Your task to perform on an android device: turn off location history Image 0: 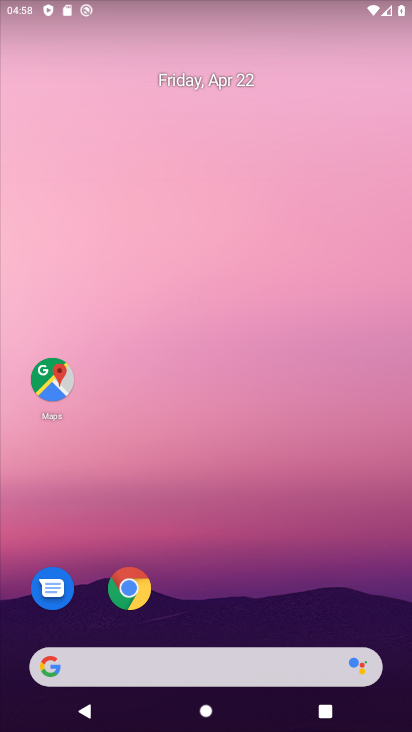
Step 0: click (135, 587)
Your task to perform on an android device: turn off location history Image 1: 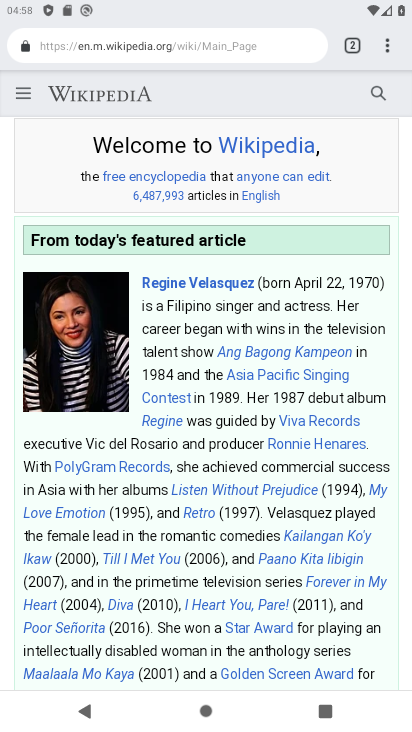
Step 1: click (357, 42)
Your task to perform on an android device: turn off location history Image 2: 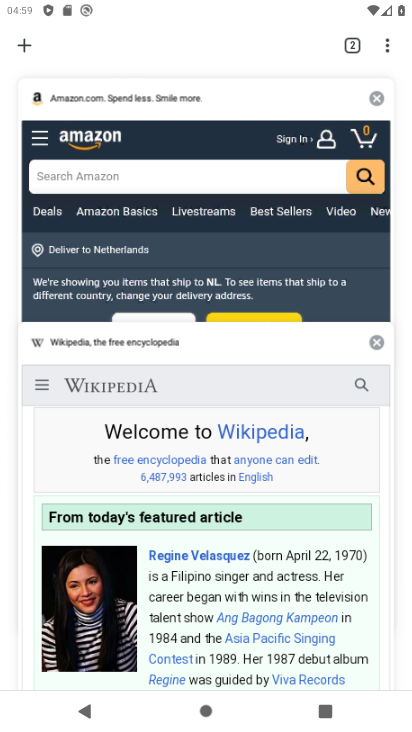
Step 2: click (384, 49)
Your task to perform on an android device: turn off location history Image 3: 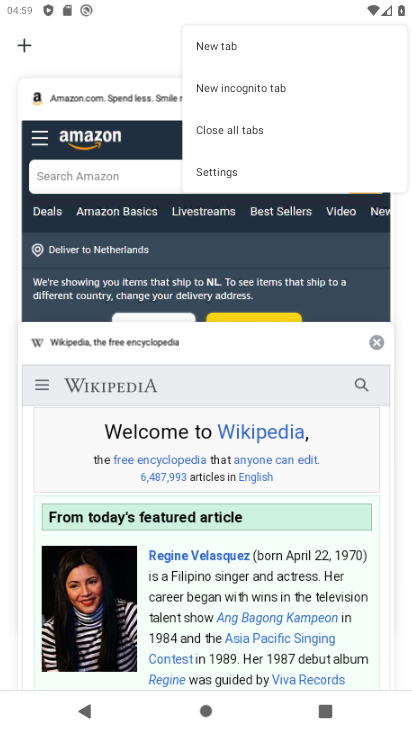
Step 3: press home button
Your task to perform on an android device: turn off location history Image 4: 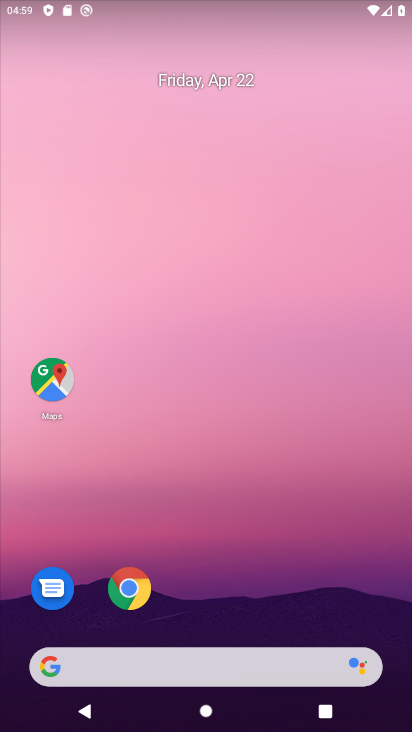
Step 4: drag from (273, 536) to (315, 59)
Your task to perform on an android device: turn off location history Image 5: 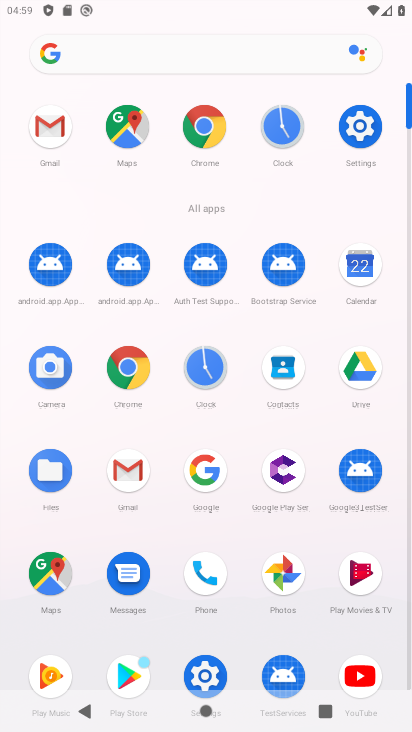
Step 5: click (356, 128)
Your task to perform on an android device: turn off location history Image 6: 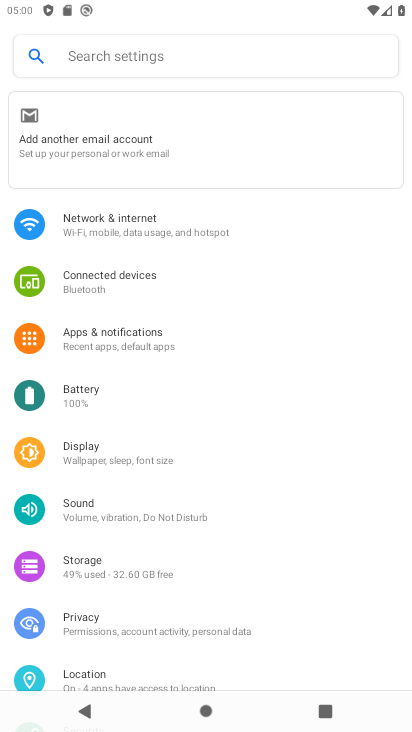
Step 6: click (109, 672)
Your task to perform on an android device: turn off location history Image 7: 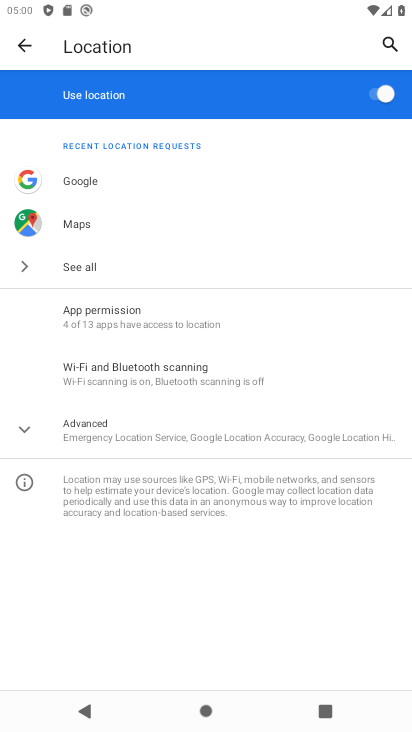
Step 7: click (147, 429)
Your task to perform on an android device: turn off location history Image 8: 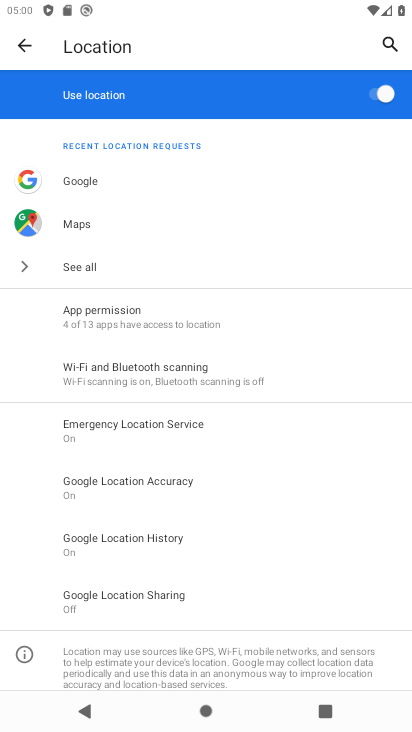
Step 8: click (161, 538)
Your task to perform on an android device: turn off location history Image 9: 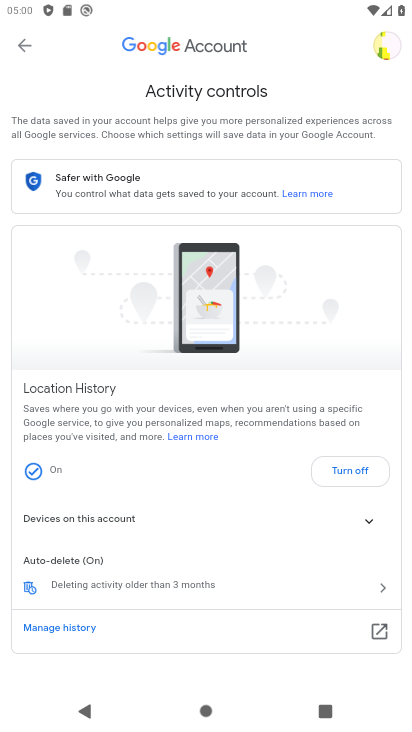
Step 9: click (350, 470)
Your task to perform on an android device: turn off location history Image 10: 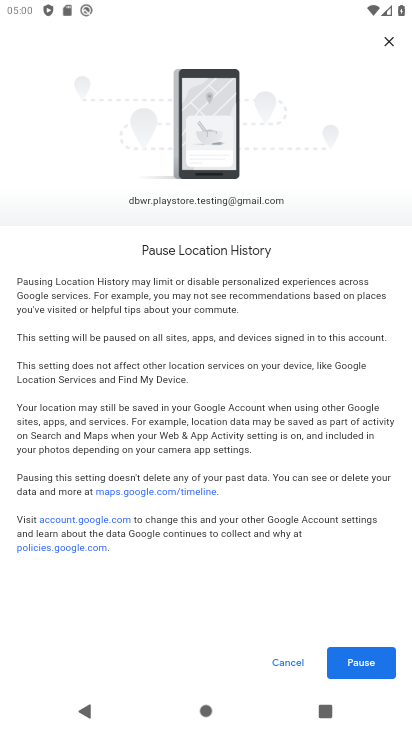
Step 10: drag from (340, 611) to (360, 214)
Your task to perform on an android device: turn off location history Image 11: 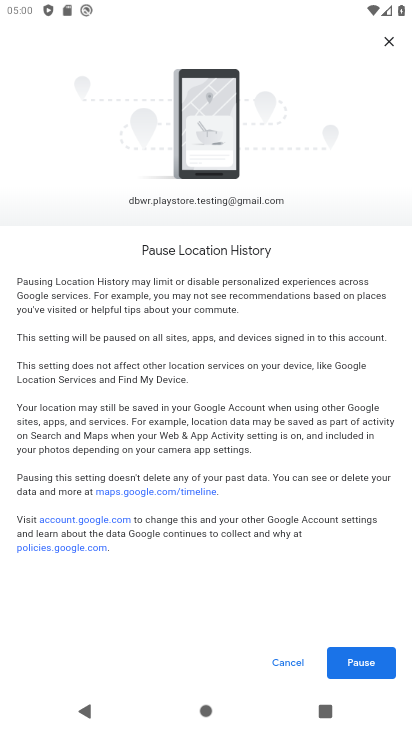
Step 11: click (368, 655)
Your task to perform on an android device: turn off location history Image 12: 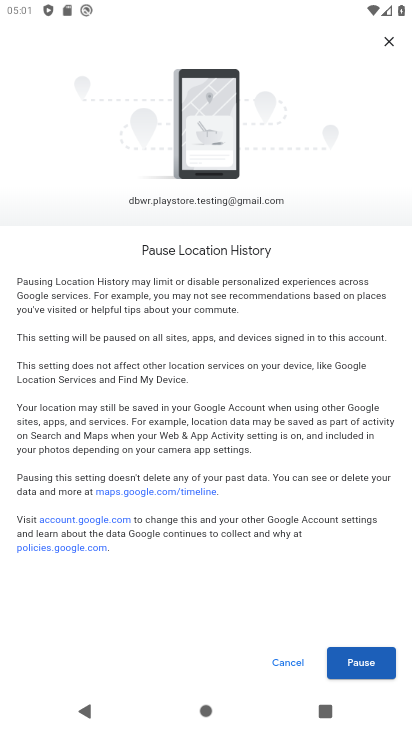
Step 12: click (368, 654)
Your task to perform on an android device: turn off location history Image 13: 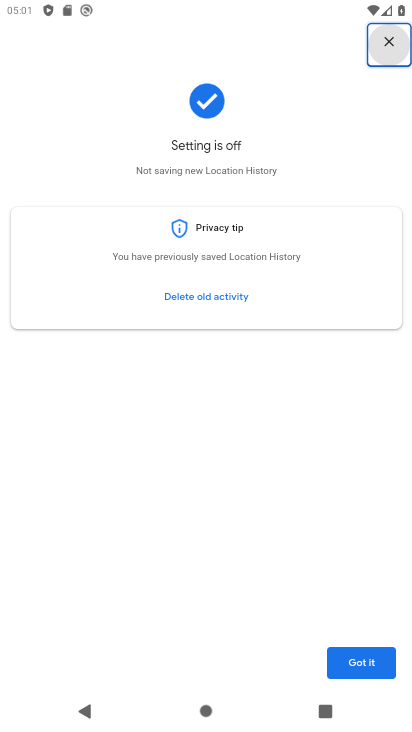
Step 13: task complete